Your task to perform on an android device: open chrome and create a bookmark for the current page Image 0: 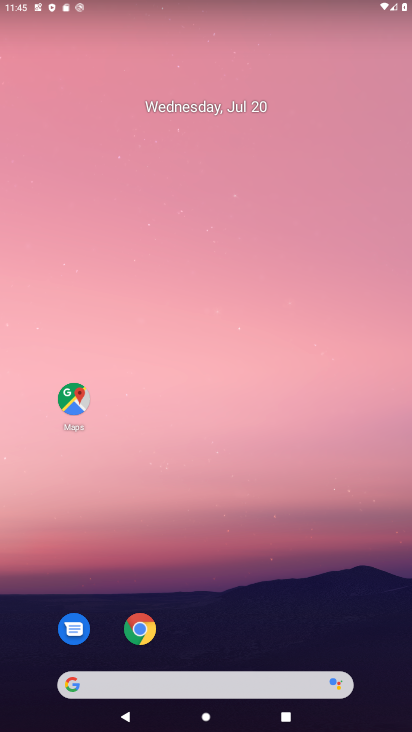
Step 0: drag from (178, 660) to (205, 217)
Your task to perform on an android device: open chrome and create a bookmark for the current page Image 1: 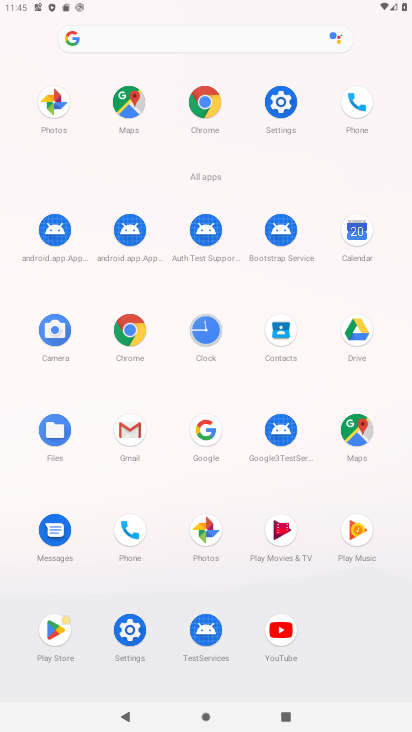
Step 1: click (207, 98)
Your task to perform on an android device: open chrome and create a bookmark for the current page Image 2: 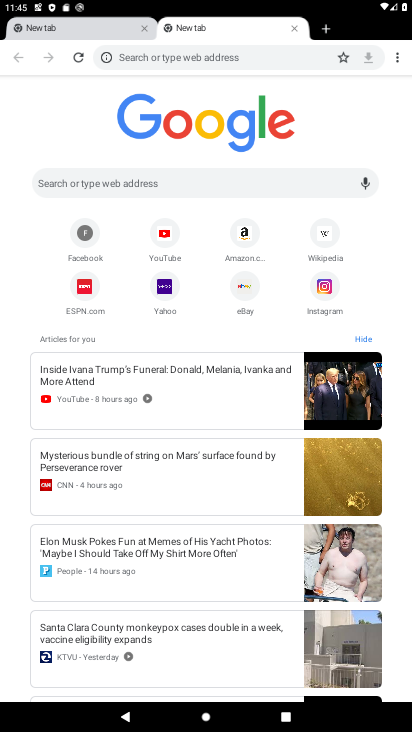
Step 2: click (345, 61)
Your task to perform on an android device: open chrome and create a bookmark for the current page Image 3: 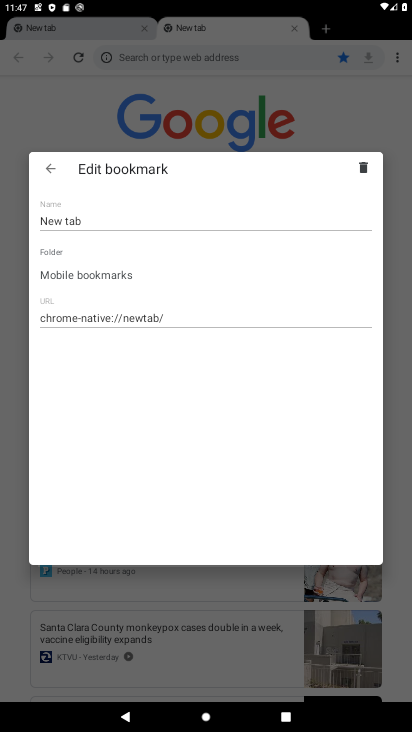
Step 3: click (382, 114)
Your task to perform on an android device: open chrome and create a bookmark for the current page Image 4: 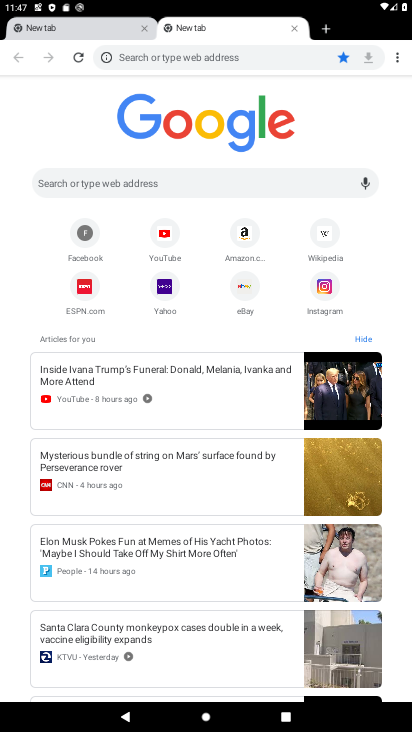
Step 4: task complete